Your task to perform on an android device: add a contact Image 0: 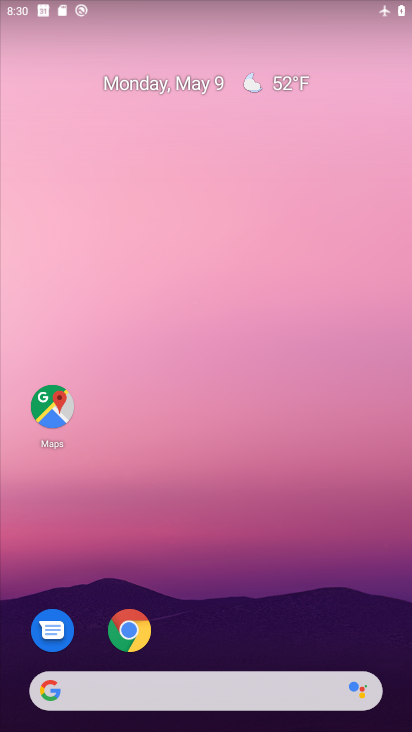
Step 0: drag from (234, 651) to (292, 153)
Your task to perform on an android device: add a contact Image 1: 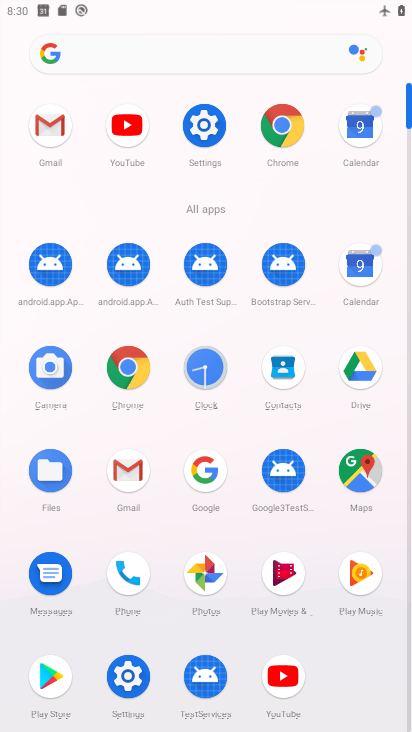
Step 1: click (297, 383)
Your task to perform on an android device: add a contact Image 2: 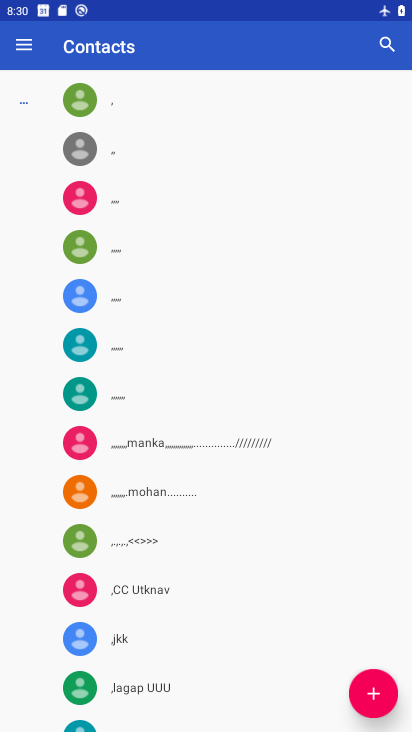
Step 2: click (361, 685)
Your task to perform on an android device: add a contact Image 3: 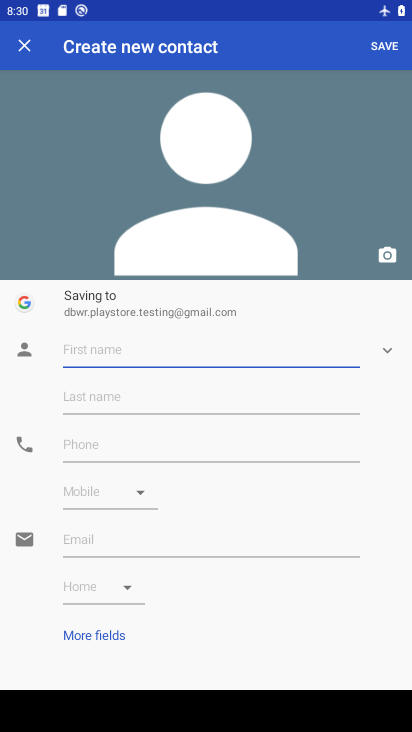
Step 3: type "barke"
Your task to perform on an android device: add a contact Image 4: 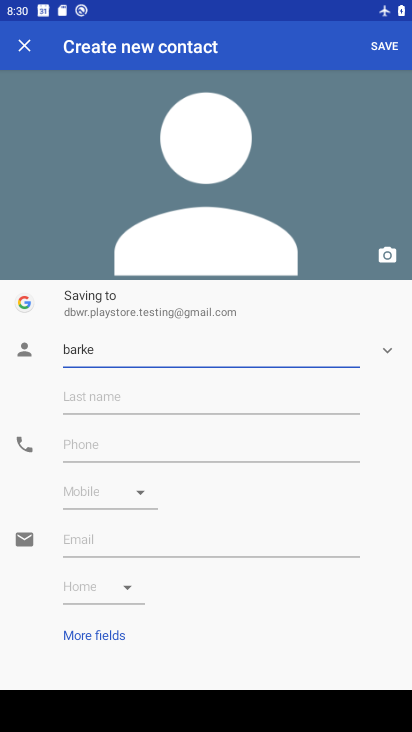
Step 4: click (387, 53)
Your task to perform on an android device: add a contact Image 5: 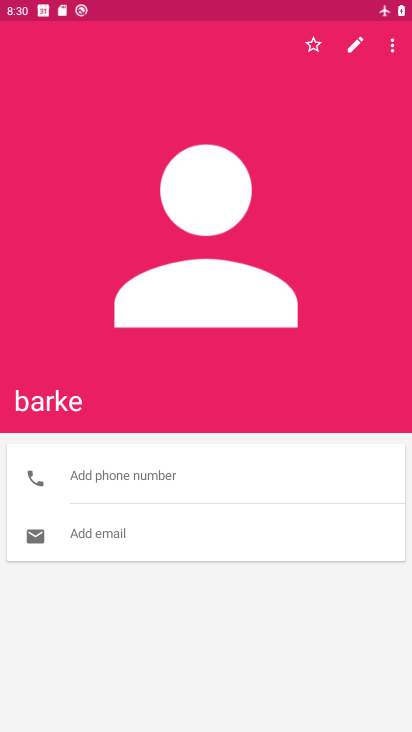
Step 5: task complete